Your task to perform on an android device: Open wifi settings Image 0: 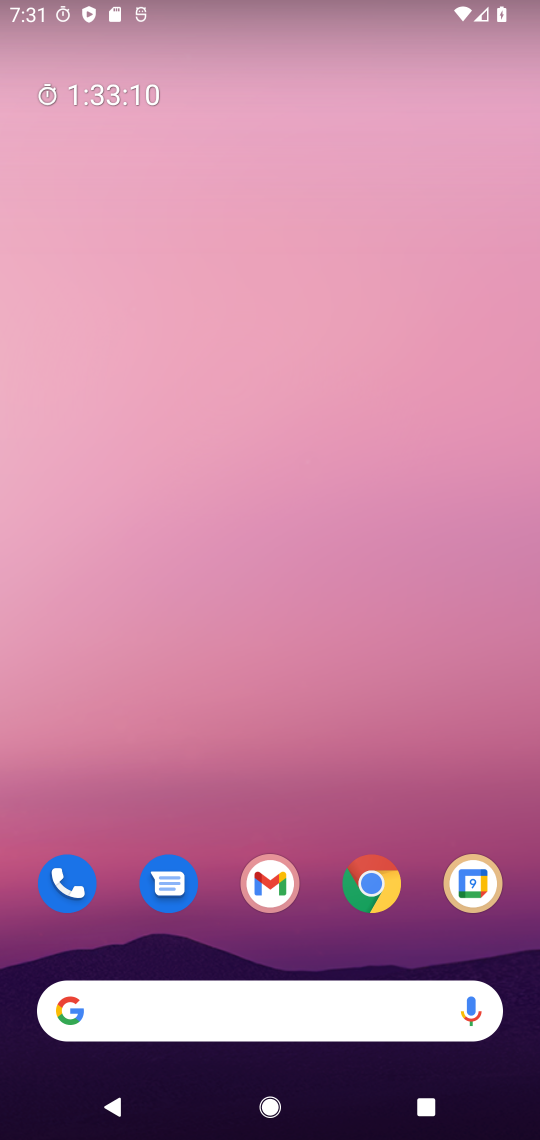
Step 0: drag from (237, 530) to (221, 255)
Your task to perform on an android device: Open wifi settings Image 1: 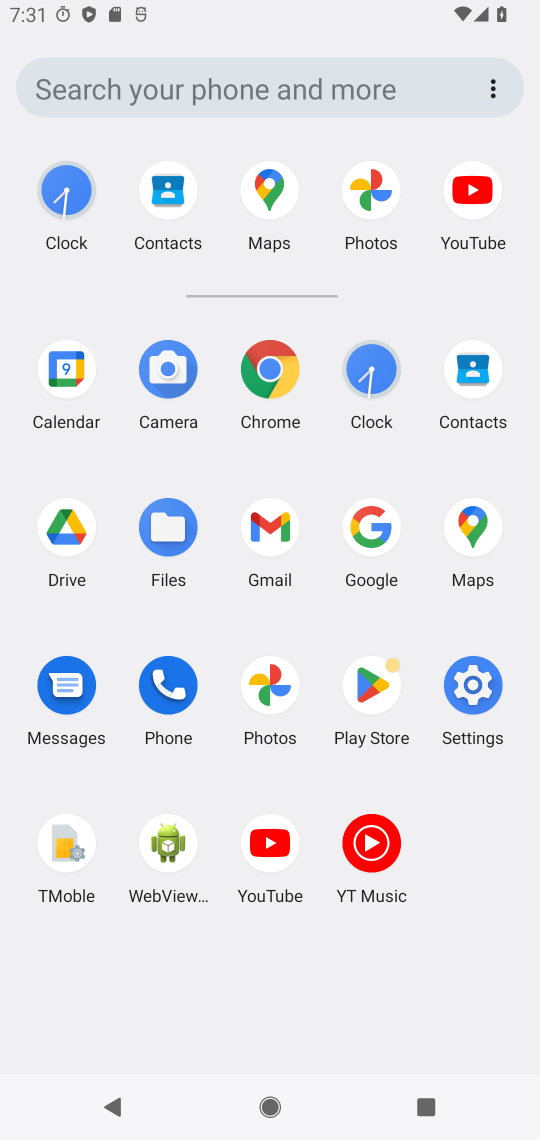
Step 1: click (469, 703)
Your task to perform on an android device: Open wifi settings Image 2: 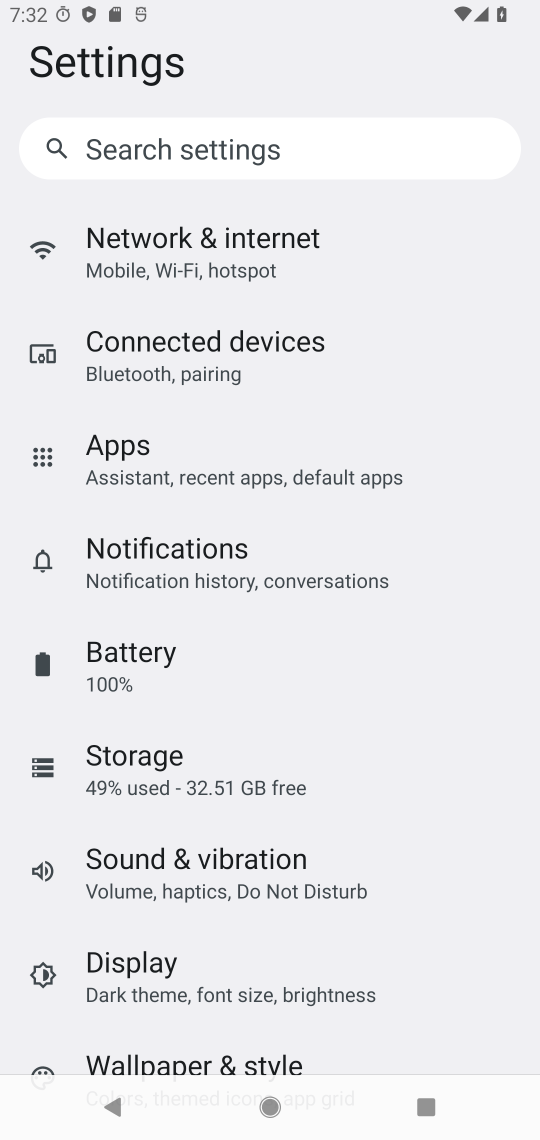
Step 2: click (161, 276)
Your task to perform on an android device: Open wifi settings Image 3: 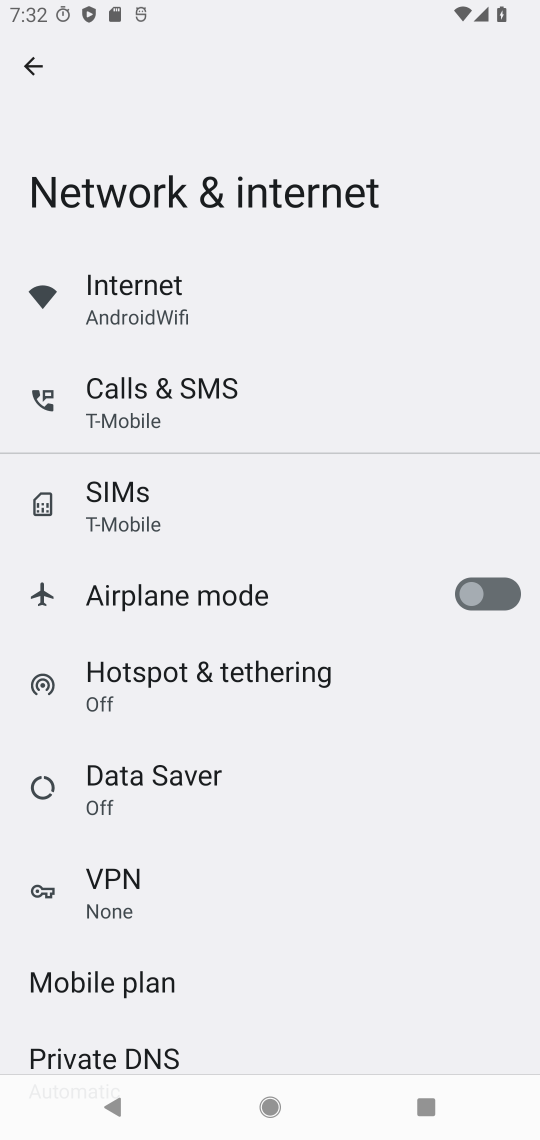
Step 3: click (172, 292)
Your task to perform on an android device: Open wifi settings Image 4: 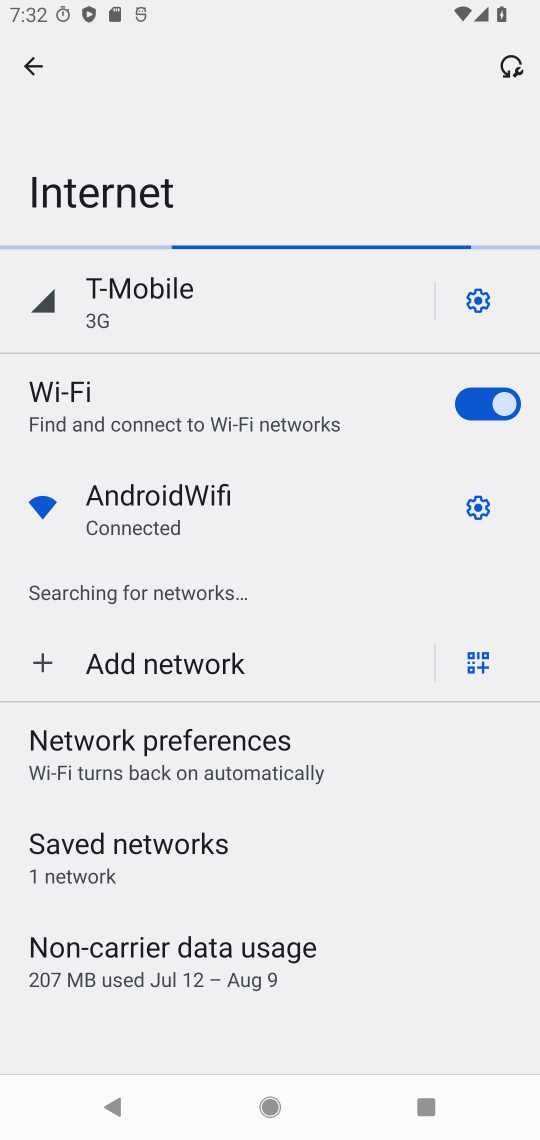
Step 4: task complete